Your task to perform on an android device: visit the assistant section in the google photos Image 0: 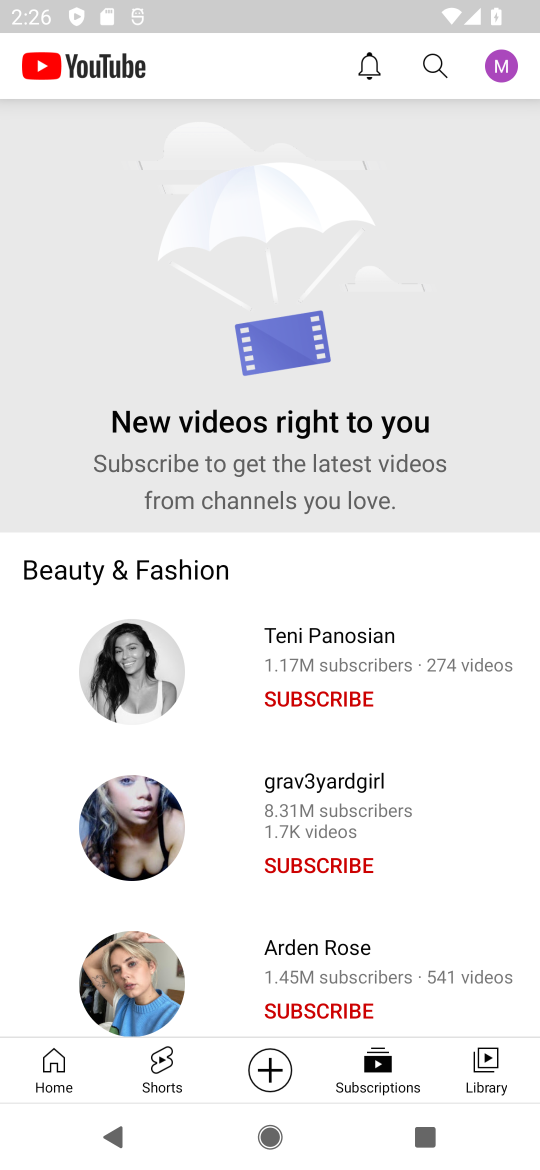
Step 0: press home button
Your task to perform on an android device: visit the assistant section in the google photos Image 1: 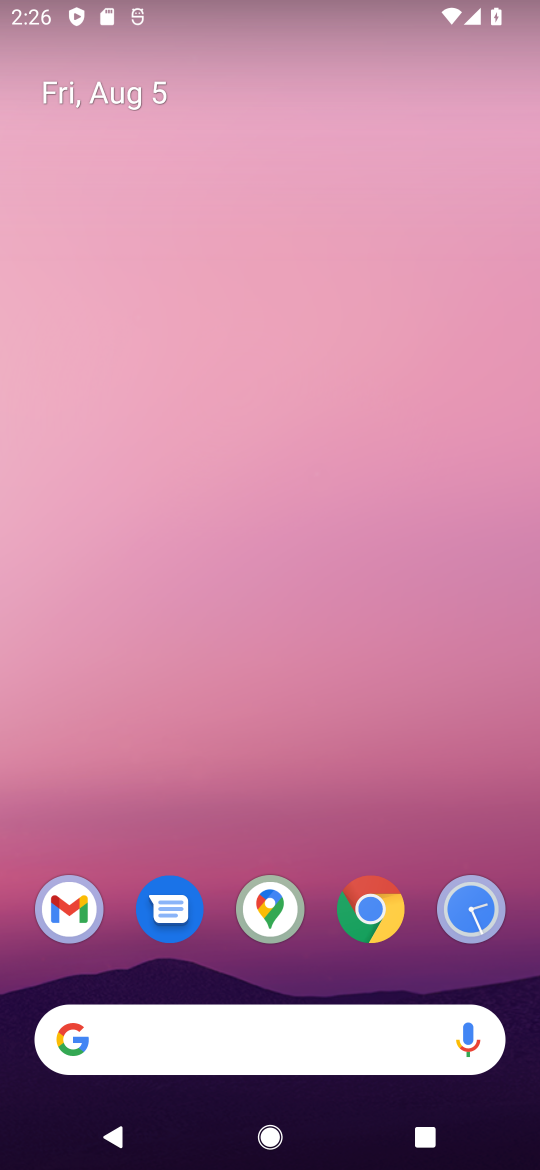
Step 1: drag from (242, 986) to (194, 375)
Your task to perform on an android device: visit the assistant section in the google photos Image 2: 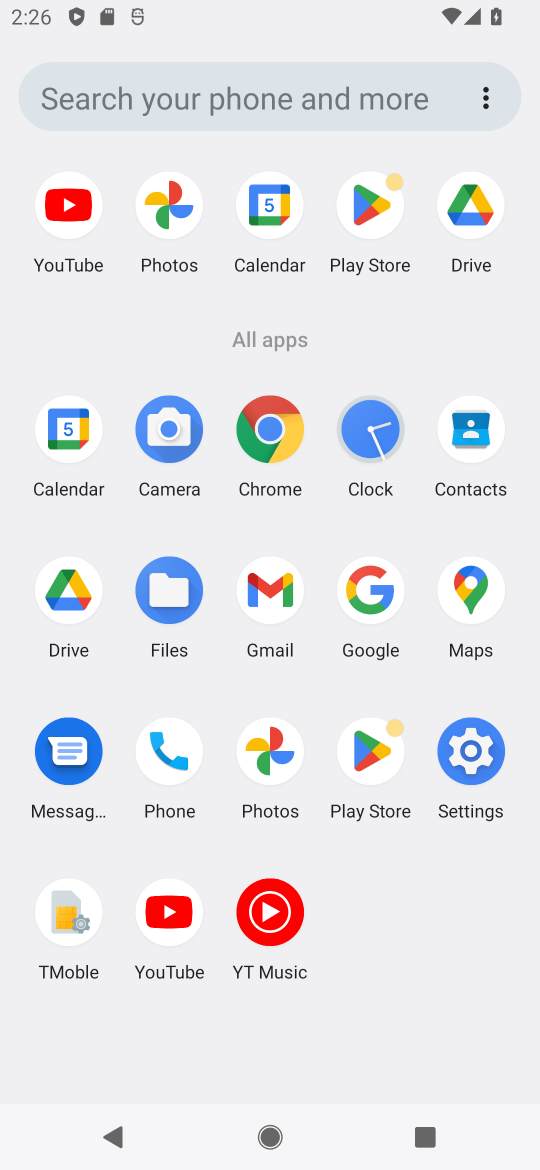
Step 2: click (277, 807)
Your task to perform on an android device: visit the assistant section in the google photos Image 3: 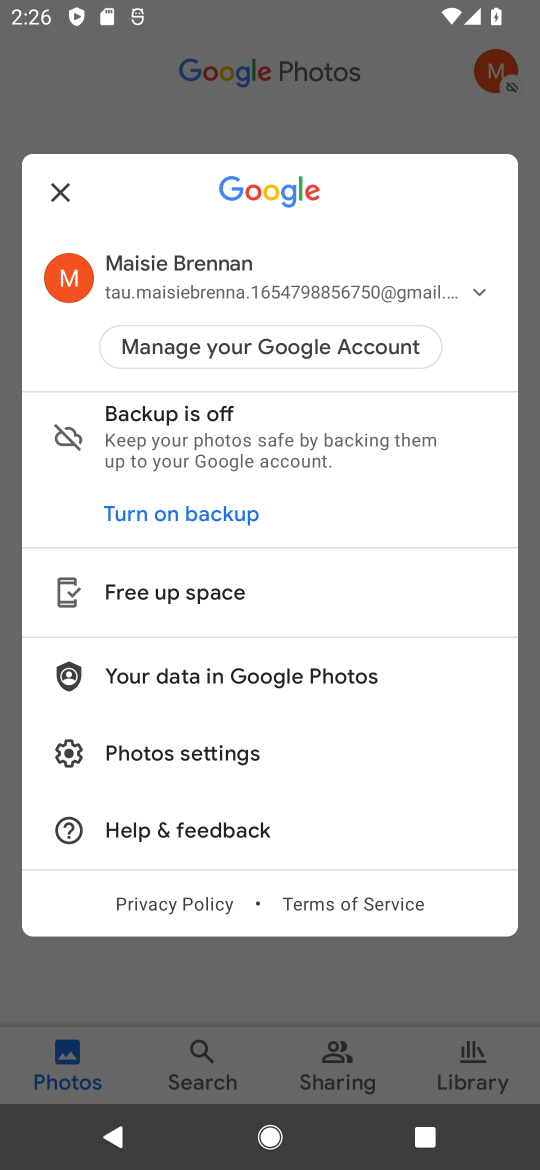
Step 3: click (255, 969)
Your task to perform on an android device: visit the assistant section in the google photos Image 4: 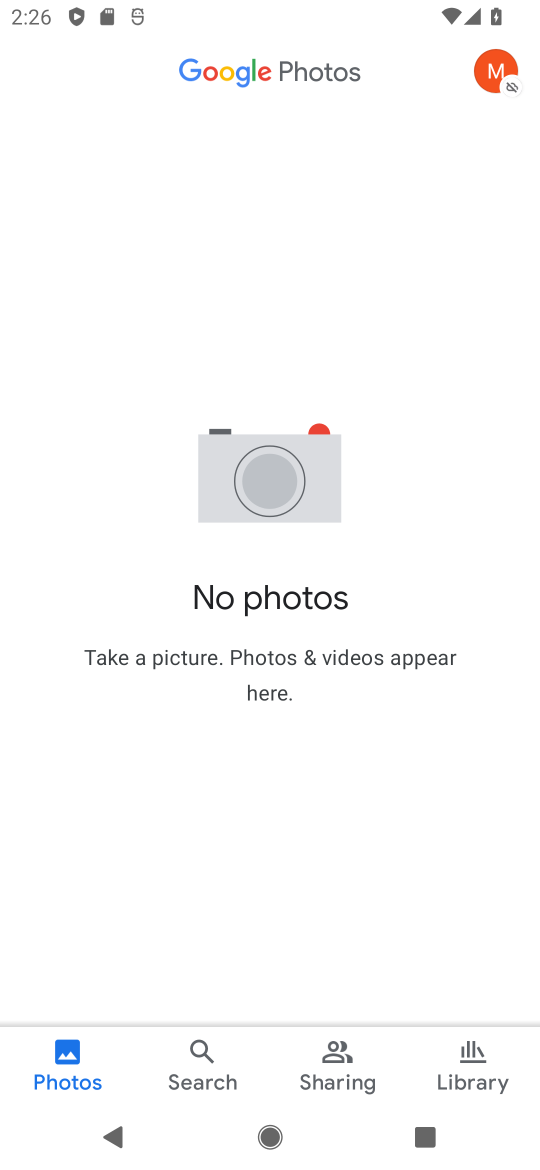
Step 4: click (492, 59)
Your task to perform on an android device: visit the assistant section in the google photos Image 5: 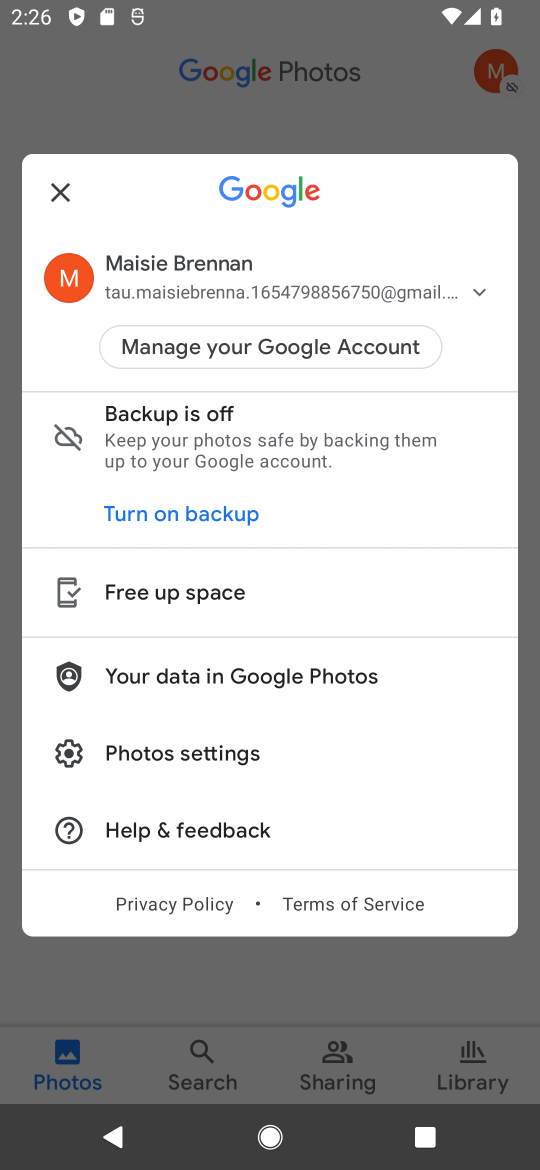
Step 5: task complete